Your task to perform on an android device: Open eBay Image 0: 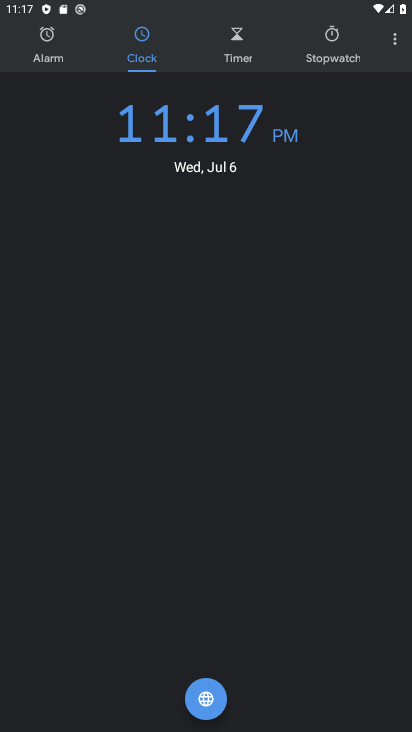
Step 0: press home button
Your task to perform on an android device: Open eBay Image 1: 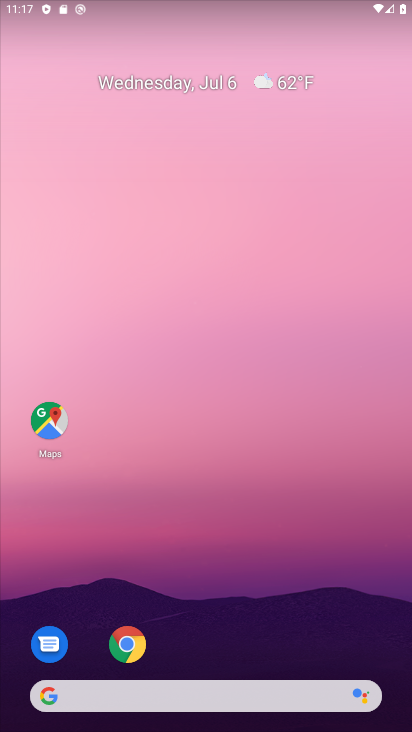
Step 1: drag from (256, 628) to (244, 120)
Your task to perform on an android device: Open eBay Image 2: 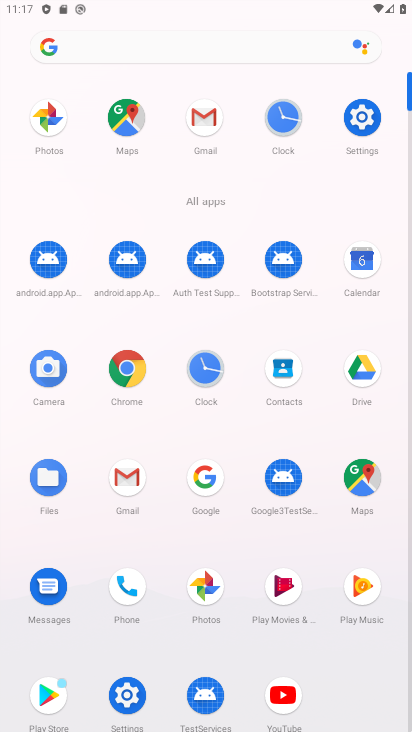
Step 2: click (134, 385)
Your task to perform on an android device: Open eBay Image 3: 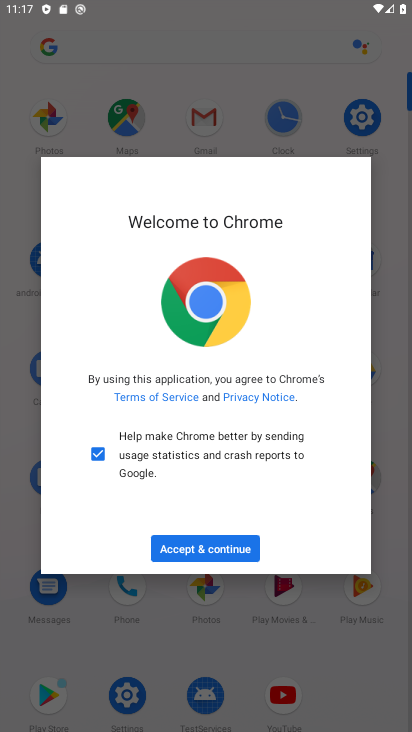
Step 3: click (203, 545)
Your task to perform on an android device: Open eBay Image 4: 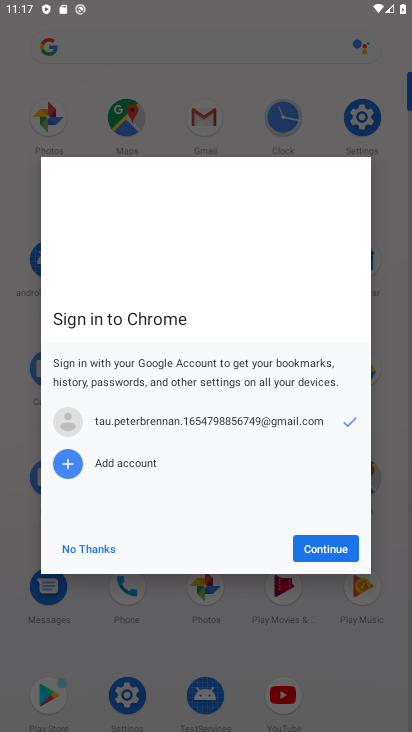
Step 4: click (330, 545)
Your task to perform on an android device: Open eBay Image 5: 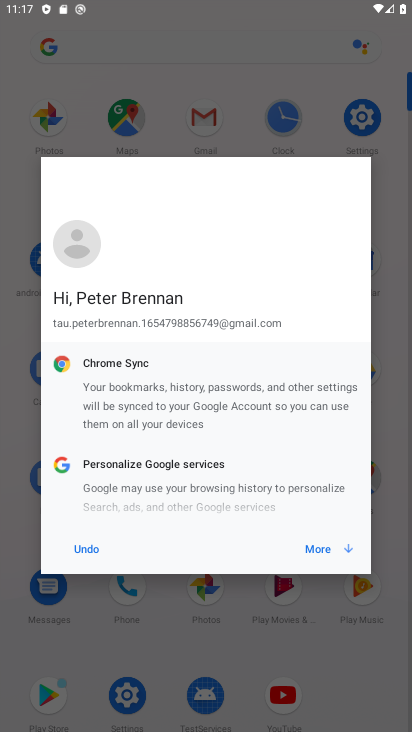
Step 5: click (328, 544)
Your task to perform on an android device: Open eBay Image 6: 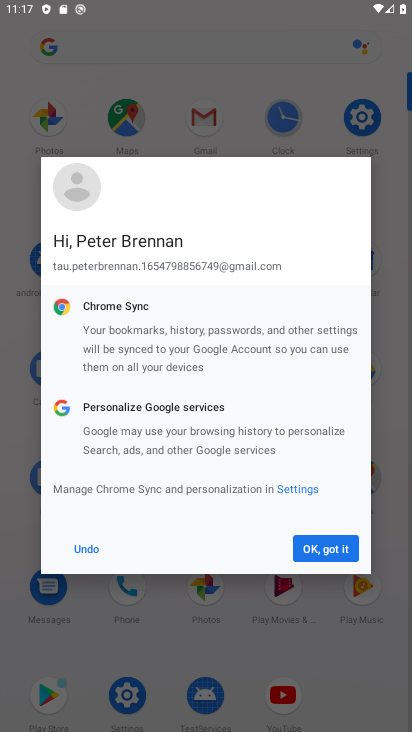
Step 6: click (328, 544)
Your task to perform on an android device: Open eBay Image 7: 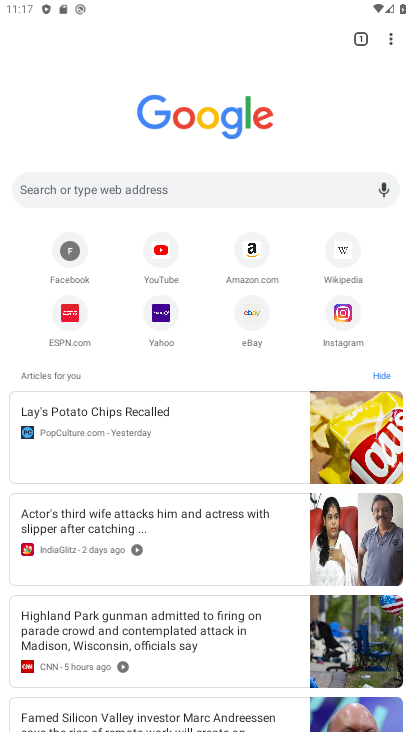
Step 7: click (256, 309)
Your task to perform on an android device: Open eBay Image 8: 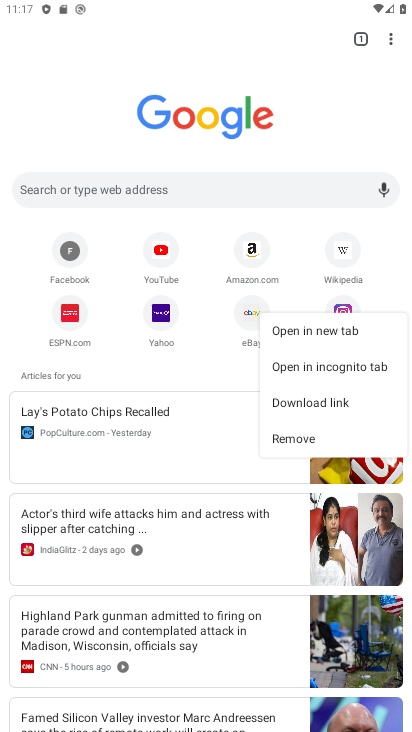
Step 8: click (133, 194)
Your task to perform on an android device: Open eBay Image 9: 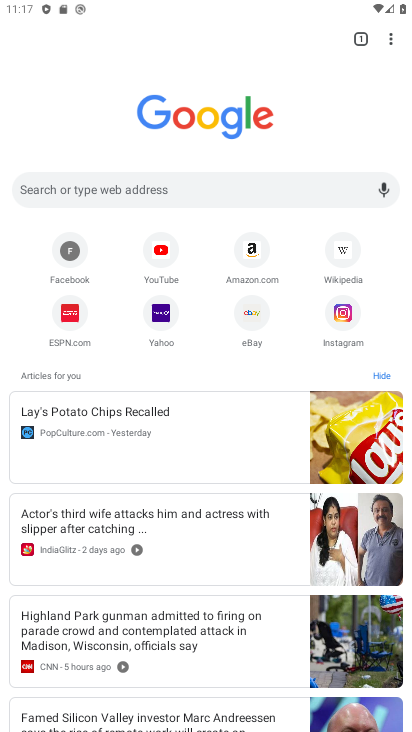
Step 9: click (185, 182)
Your task to perform on an android device: Open eBay Image 10: 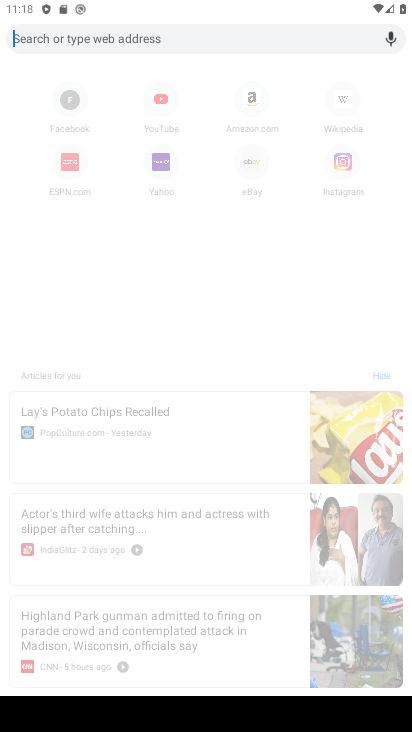
Step 10: type "eBay"
Your task to perform on an android device: Open eBay Image 11: 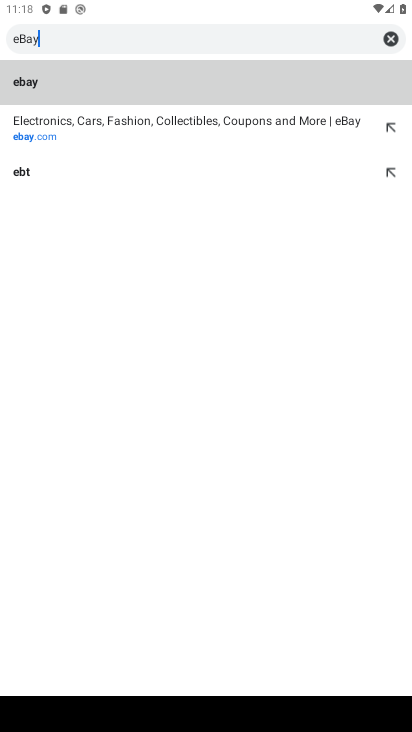
Step 11: type ""
Your task to perform on an android device: Open eBay Image 12: 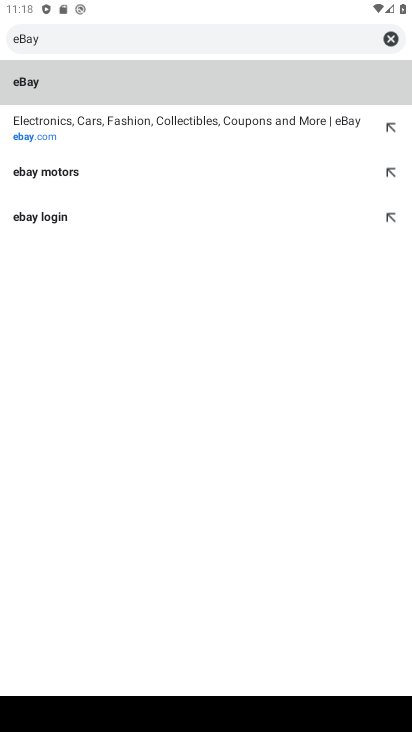
Step 12: click (89, 130)
Your task to perform on an android device: Open eBay Image 13: 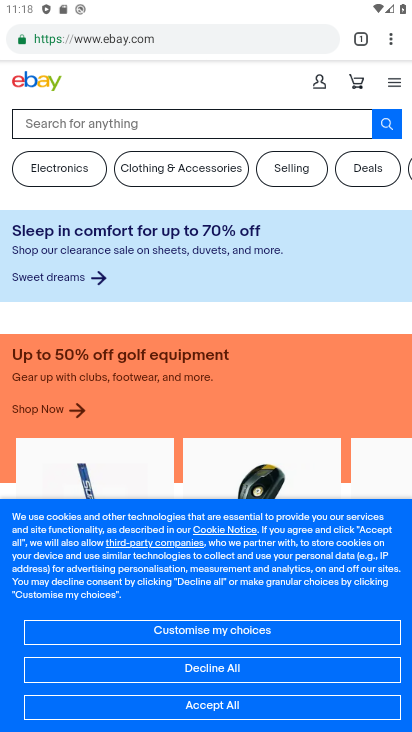
Step 13: task complete